Your task to perform on an android device: Open Amazon Image 0: 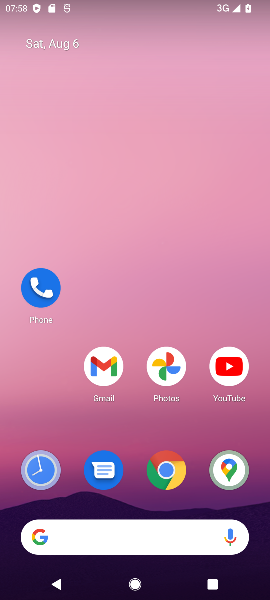
Step 0: drag from (152, 405) to (105, 98)
Your task to perform on an android device: Open Amazon Image 1: 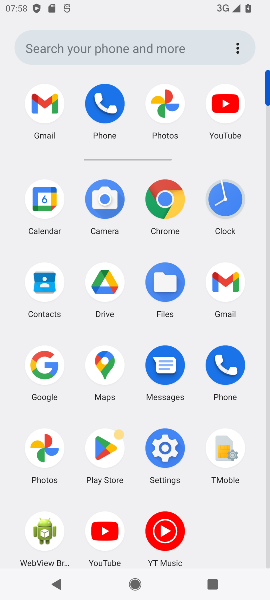
Step 1: click (172, 197)
Your task to perform on an android device: Open Amazon Image 2: 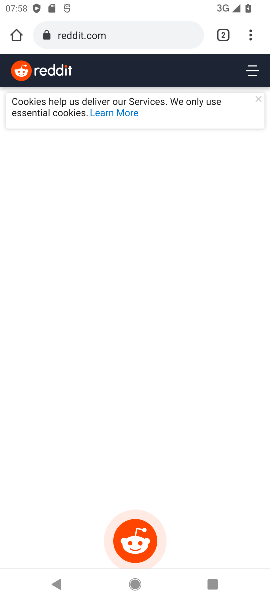
Step 2: click (152, 33)
Your task to perform on an android device: Open Amazon Image 3: 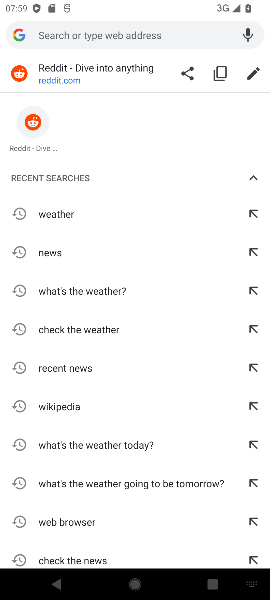
Step 3: type "amazon"
Your task to perform on an android device: Open Amazon Image 4: 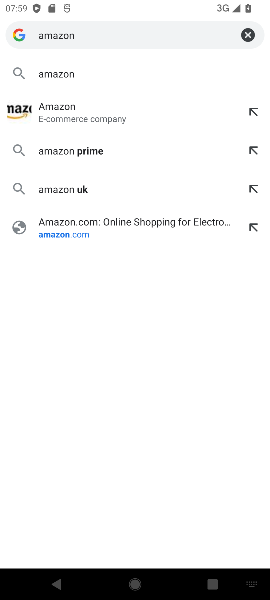
Step 4: click (102, 108)
Your task to perform on an android device: Open Amazon Image 5: 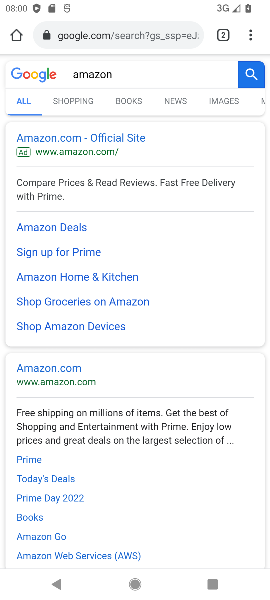
Step 5: click (32, 152)
Your task to perform on an android device: Open Amazon Image 6: 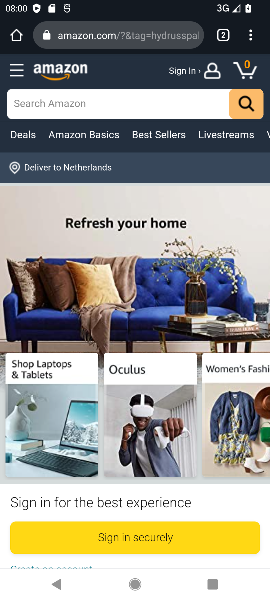
Step 6: task complete